Your task to perform on an android device: Search for Italian restaurants on Maps Image 0: 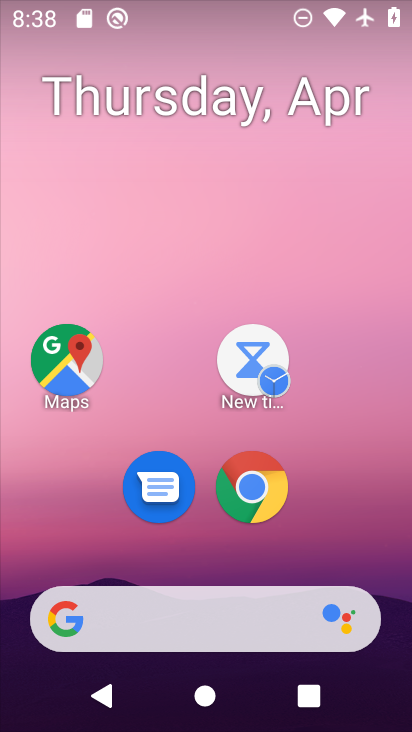
Step 0: click (79, 356)
Your task to perform on an android device: Search for Italian restaurants on Maps Image 1: 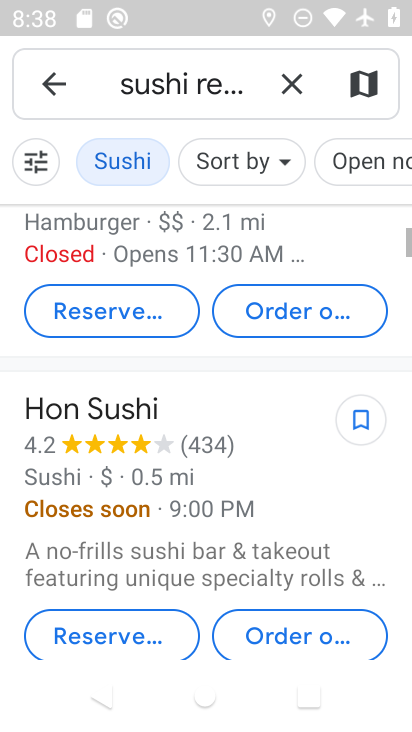
Step 1: click (290, 88)
Your task to perform on an android device: Search for Italian restaurants on Maps Image 2: 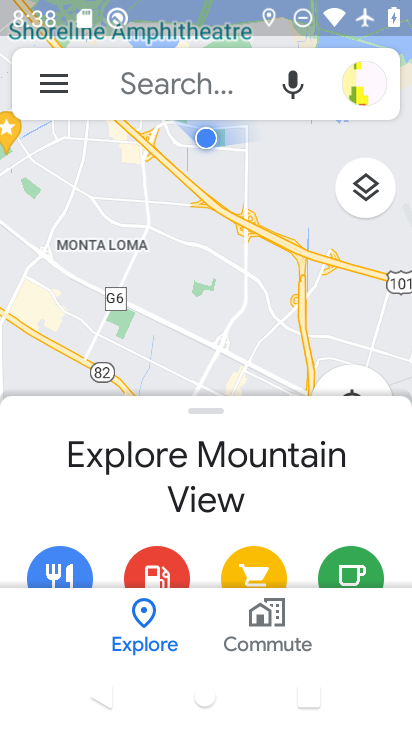
Step 2: click (196, 100)
Your task to perform on an android device: Search for Italian restaurants on Maps Image 3: 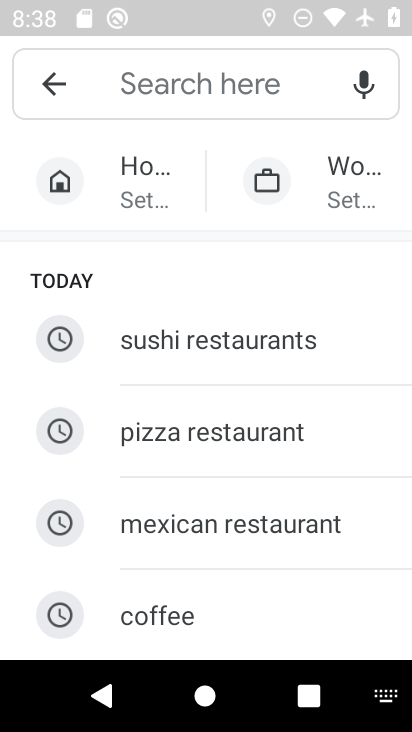
Step 3: drag from (203, 570) to (201, 231)
Your task to perform on an android device: Search for Italian restaurants on Maps Image 4: 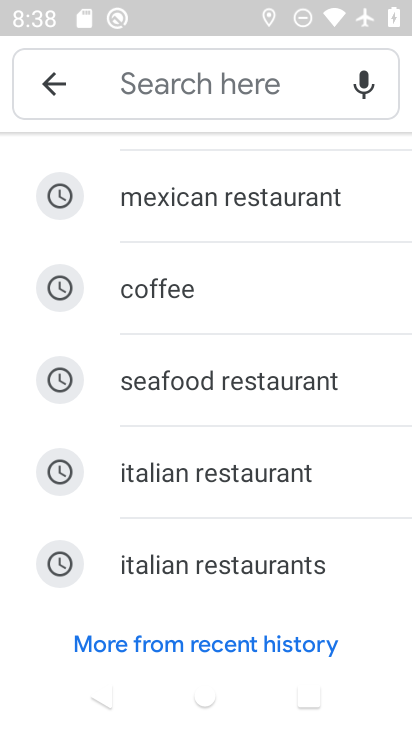
Step 4: click (221, 567)
Your task to perform on an android device: Search for Italian restaurants on Maps Image 5: 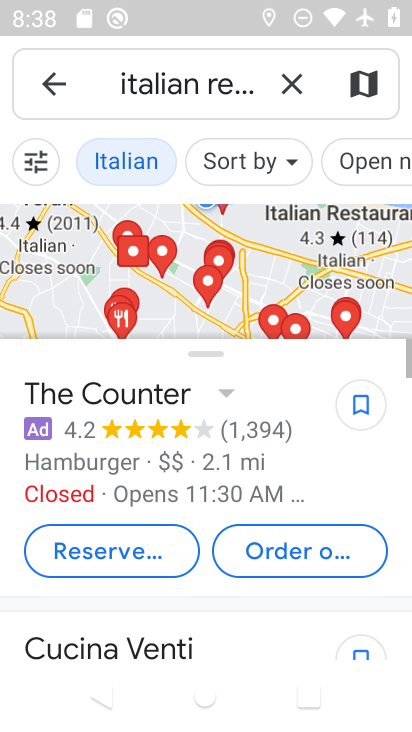
Step 5: task complete